Your task to perform on an android device: Is it going to rain this weekend? Image 0: 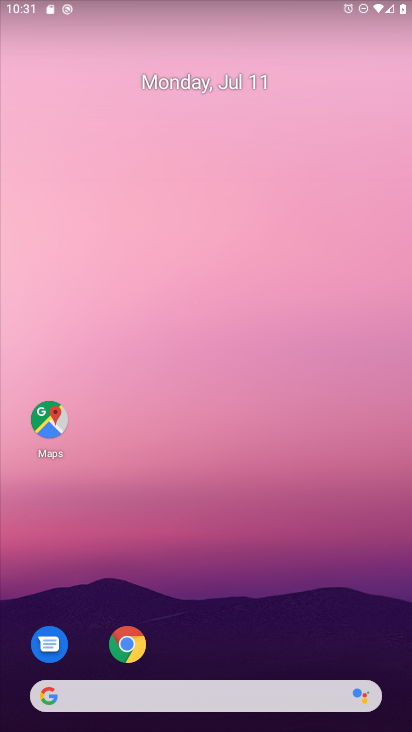
Step 0: drag from (230, 675) to (204, 379)
Your task to perform on an android device: Is it going to rain this weekend? Image 1: 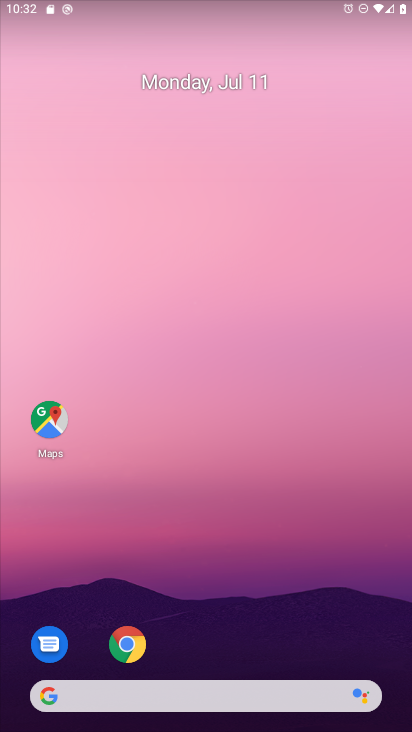
Step 1: drag from (200, 628) to (156, 242)
Your task to perform on an android device: Is it going to rain this weekend? Image 2: 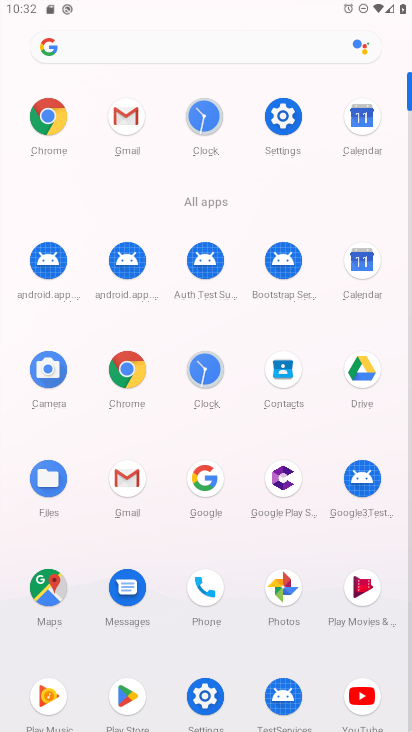
Step 2: click (206, 485)
Your task to perform on an android device: Is it going to rain this weekend? Image 3: 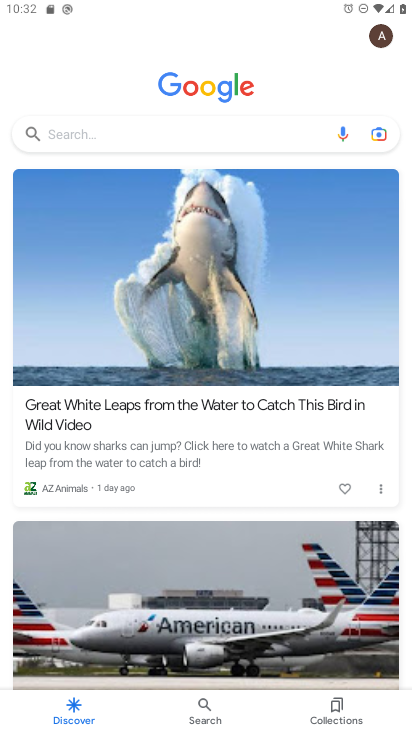
Step 3: click (103, 126)
Your task to perform on an android device: Is it going to rain this weekend? Image 4: 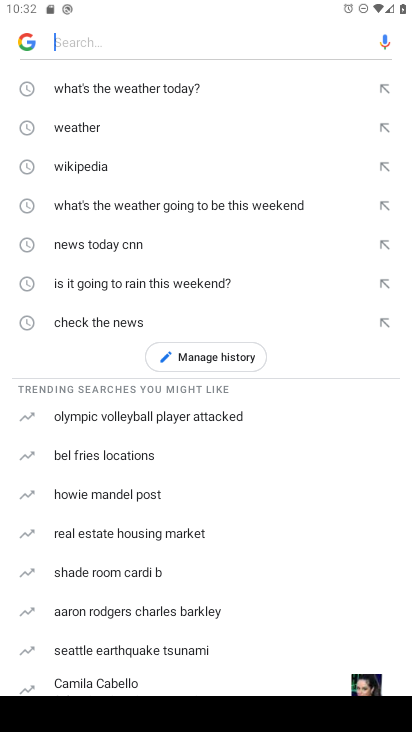
Step 4: click (116, 286)
Your task to perform on an android device: Is it going to rain this weekend? Image 5: 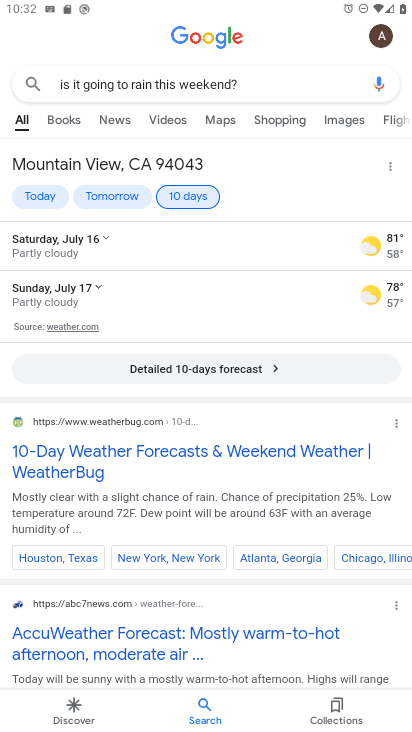
Step 5: task complete